Your task to perform on an android device: Go to Maps Image 0: 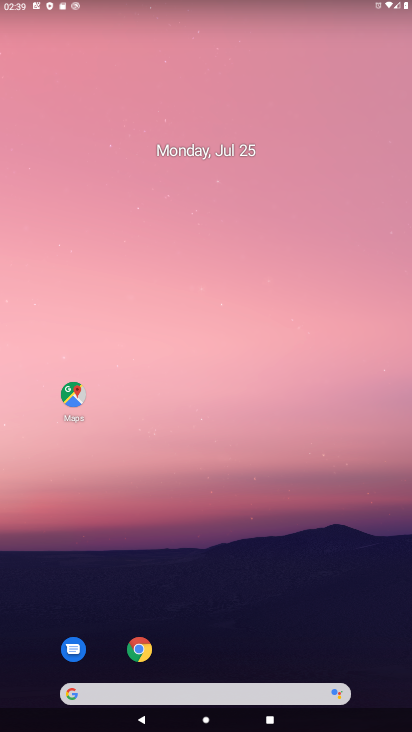
Step 0: click (73, 390)
Your task to perform on an android device: Go to Maps Image 1: 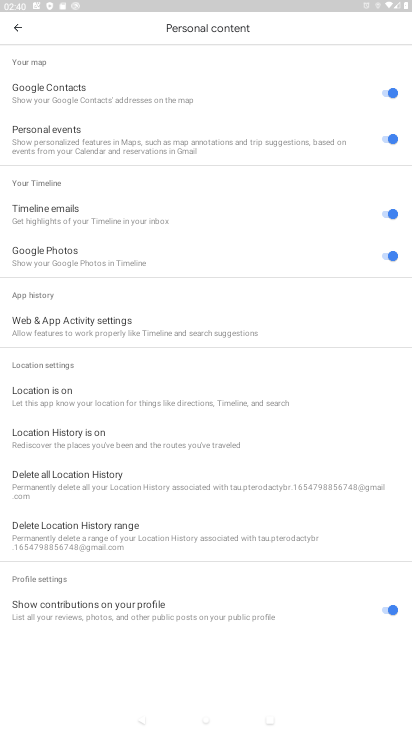
Step 1: task complete